Your task to perform on an android device: Open notification settings Image 0: 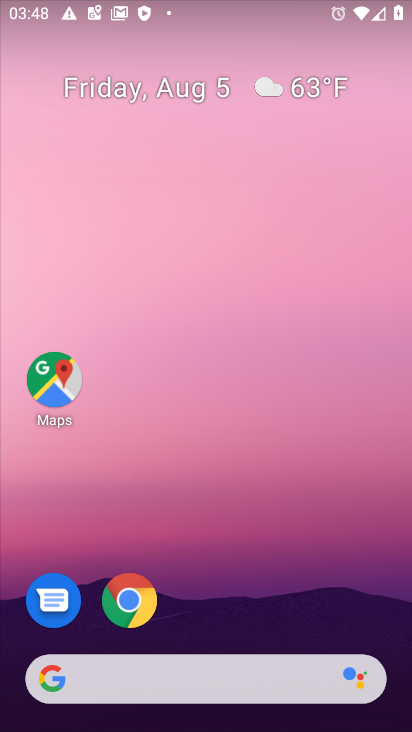
Step 0: drag from (167, 686) to (196, 91)
Your task to perform on an android device: Open notification settings Image 1: 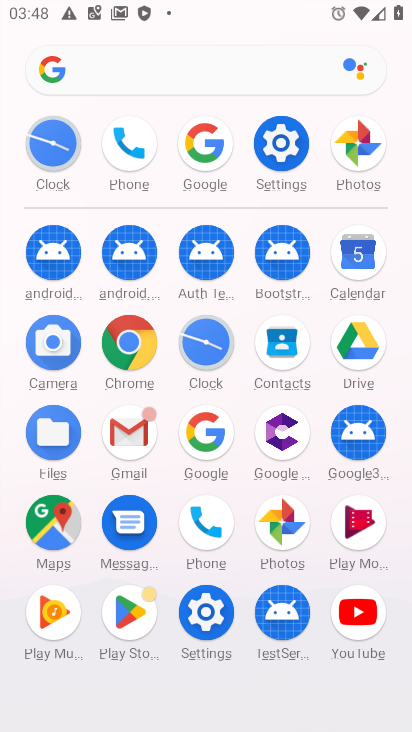
Step 1: click (279, 145)
Your task to perform on an android device: Open notification settings Image 2: 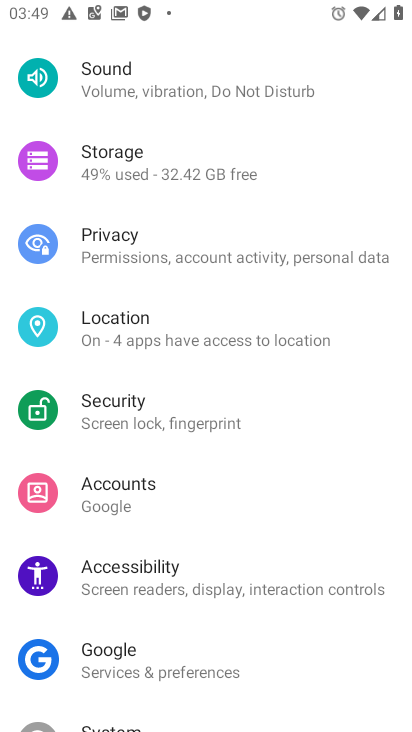
Step 2: drag from (234, 151) to (198, 359)
Your task to perform on an android device: Open notification settings Image 3: 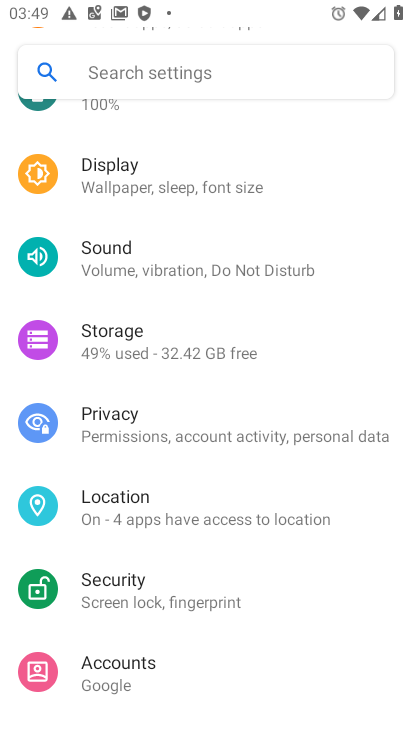
Step 3: drag from (205, 251) to (197, 427)
Your task to perform on an android device: Open notification settings Image 4: 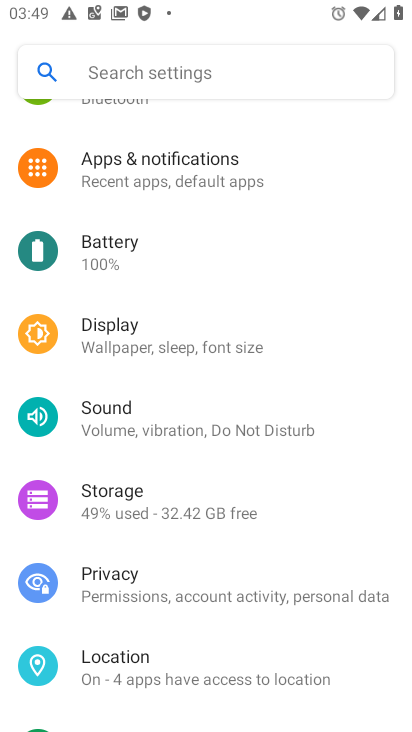
Step 4: drag from (200, 137) to (229, 374)
Your task to perform on an android device: Open notification settings Image 5: 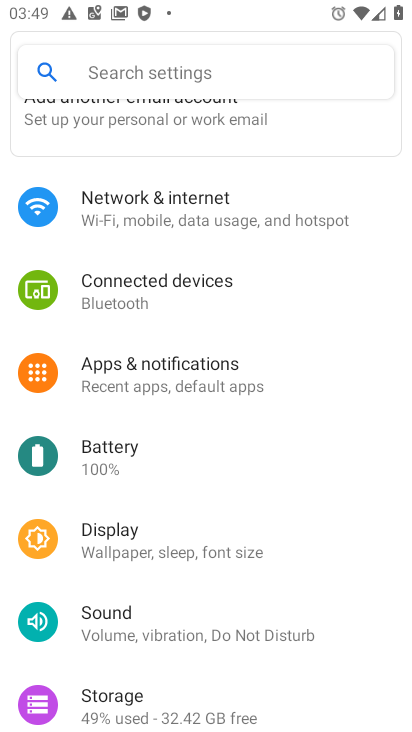
Step 5: click (192, 364)
Your task to perform on an android device: Open notification settings Image 6: 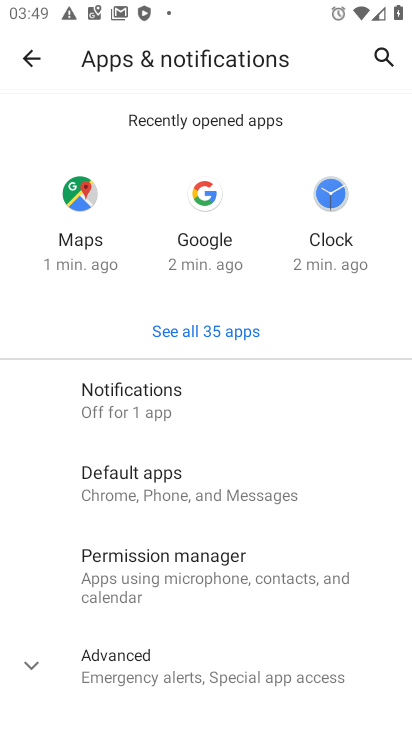
Step 6: click (153, 407)
Your task to perform on an android device: Open notification settings Image 7: 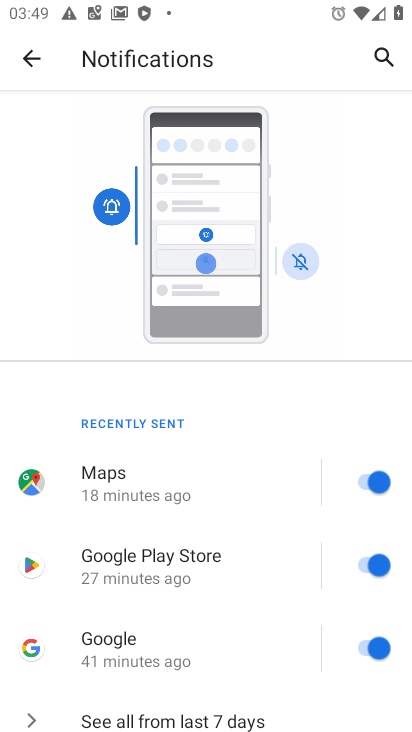
Step 7: task complete